Your task to perform on an android device: open a bookmark in the chrome app Image 0: 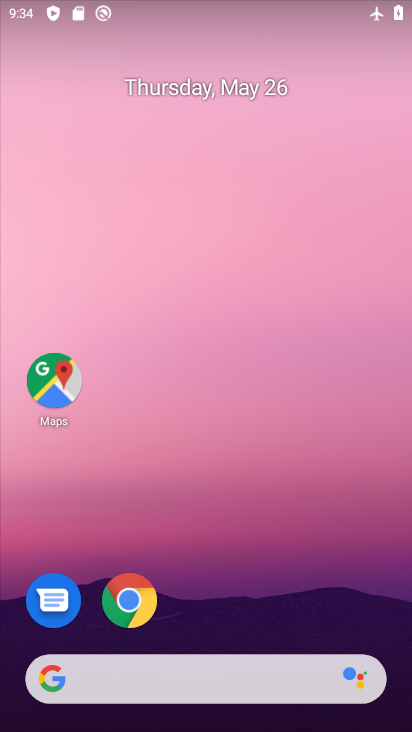
Step 0: click (132, 598)
Your task to perform on an android device: open a bookmark in the chrome app Image 1: 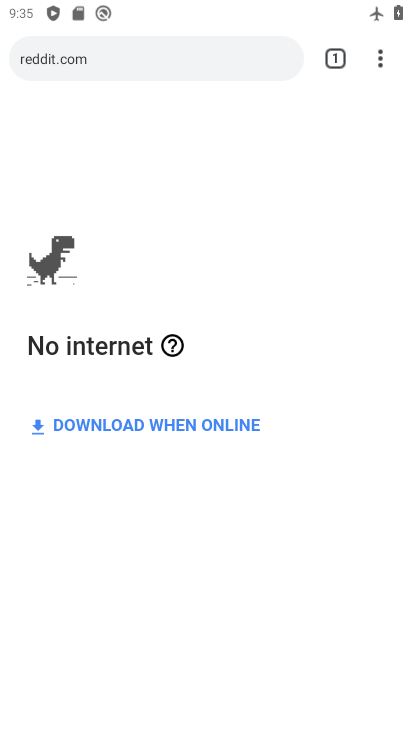
Step 1: press home button
Your task to perform on an android device: open a bookmark in the chrome app Image 2: 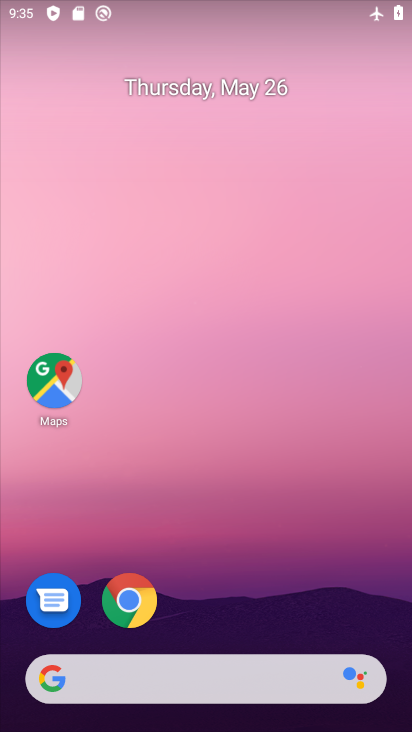
Step 2: click (135, 596)
Your task to perform on an android device: open a bookmark in the chrome app Image 3: 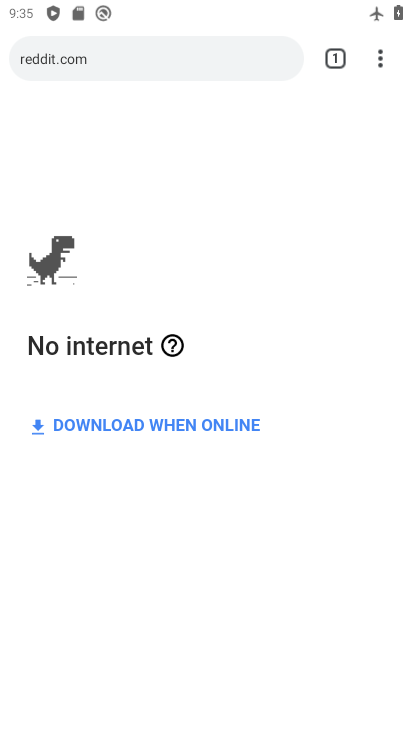
Step 3: task complete